Your task to perform on an android device: add a contact in the contacts app Image 0: 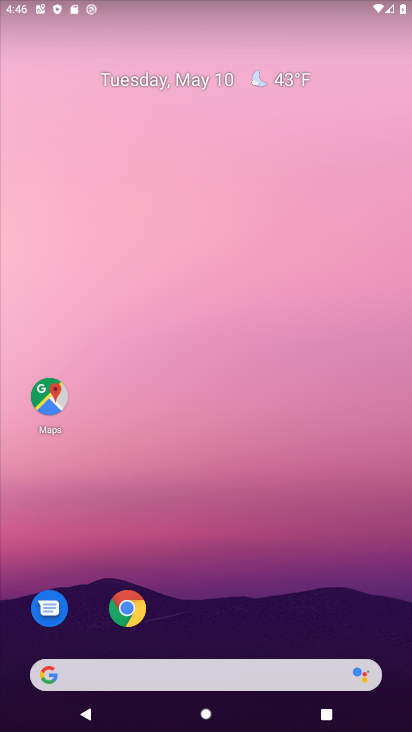
Step 0: drag from (182, 646) to (276, 45)
Your task to perform on an android device: add a contact in the contacts app Image 1: 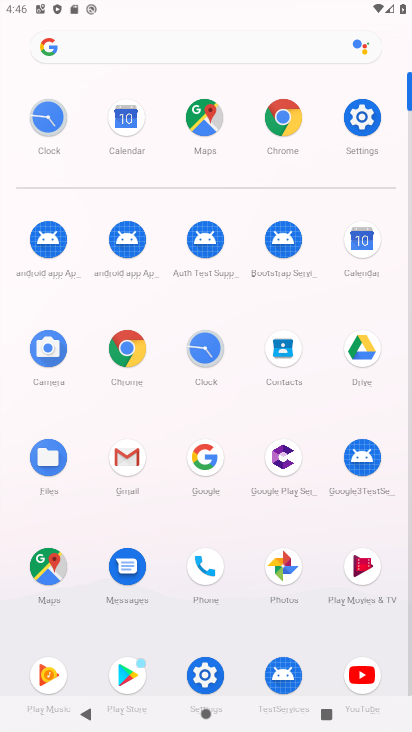
Step 1: click (282, 347)
Your task to perform on an android device: add a contact in the contacts app Image 2: 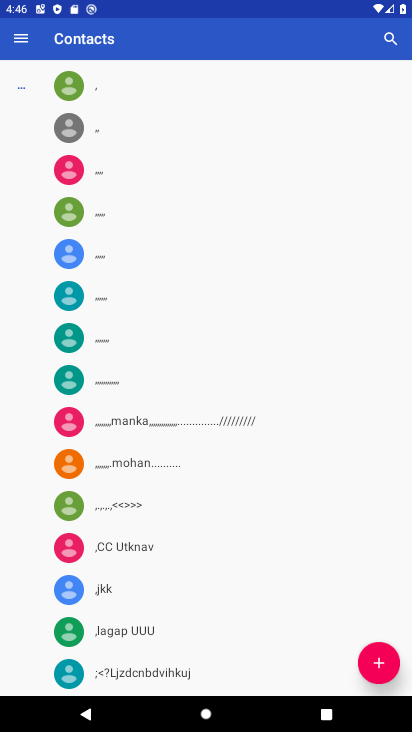
Step 2: click (358, 656)
Your task to perform on an android device: add a contact in the contacts app Image 3: 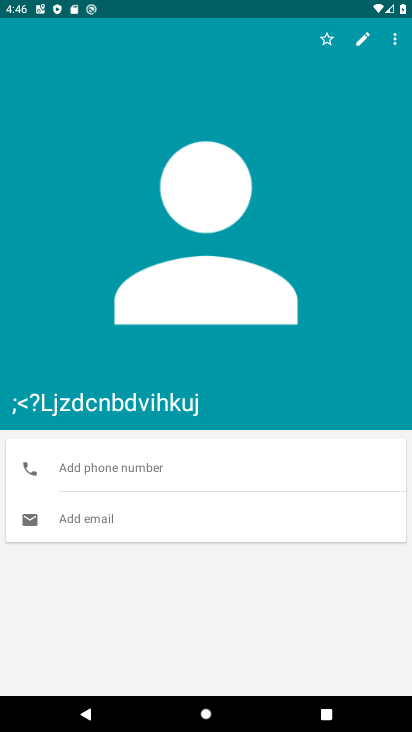
Step 3: press back button
Your task to perform on an android device: add a contact in the contacts app Image 4: 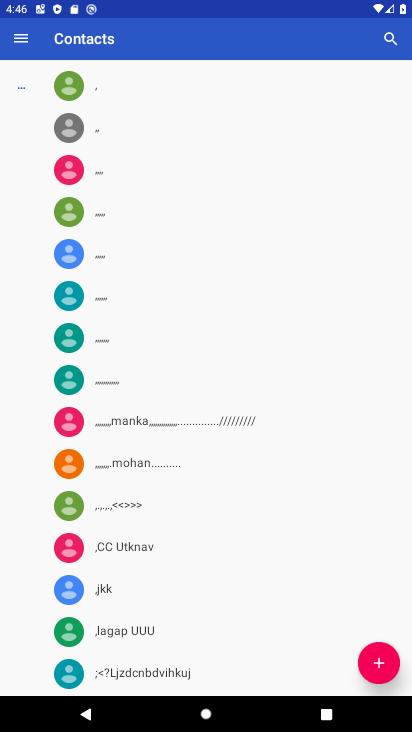
Step 4: click (385, 657)
Your task to perform on an android device: add a contact in the contacts app Image 5: 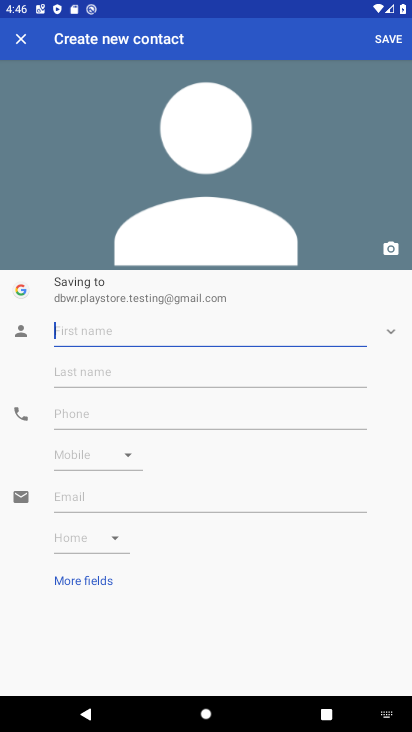
Step 5: click (97, 334)
Your task to perform on an android device: add a contact in the contacts app Image 6: 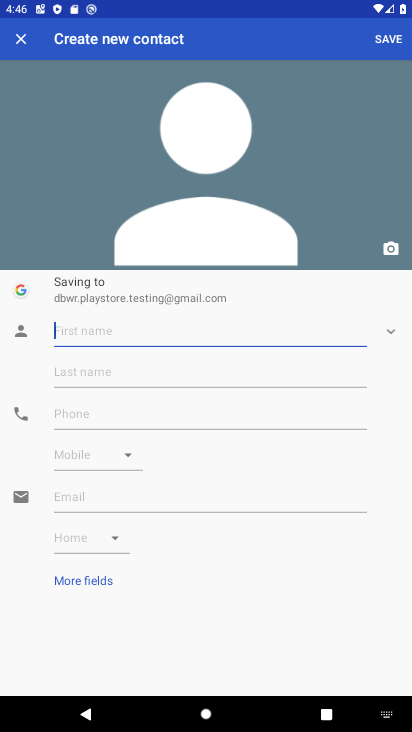
Step 6: type "vsvf"
Your task to perform on an android device: add a contact in the contacts app Image 7: 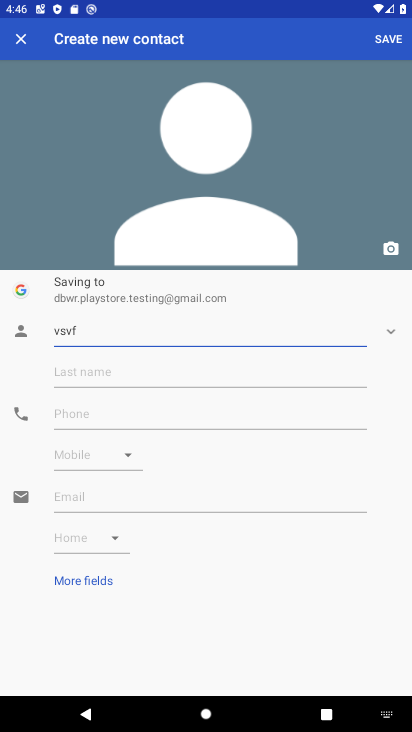
Step 7: click (95, 412)
Your task to perform on an android device: add a contact in the contacts app Image 8: 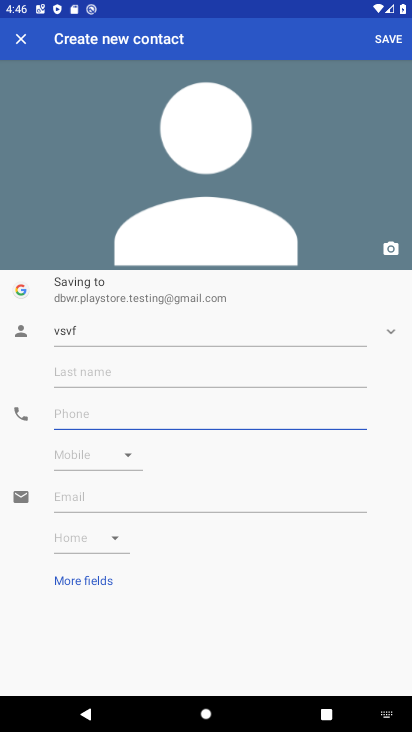
Step 8: type "6747"
Your task to perform on an android device: add a contact in the contacts app Image 9: 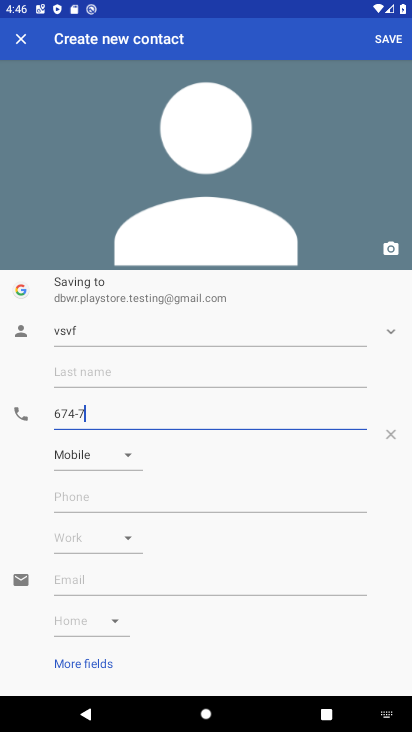
Step 9: click (381, 35)
Your task to perform on an android device: add a contact in the contacts app Image 10: 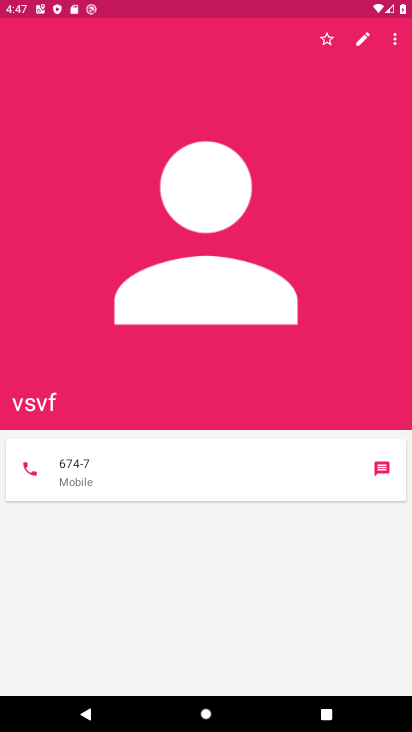
Step 10: task complete